Your task to perform on an android device: turn notification dots off Image 0: 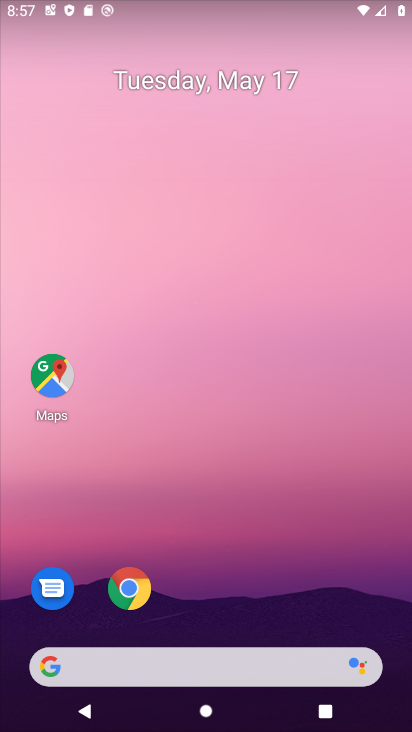
Step 0: drag from (348, 475) to (337, 250)
Your task to perform on an android device: turn notification dots off Image 1: 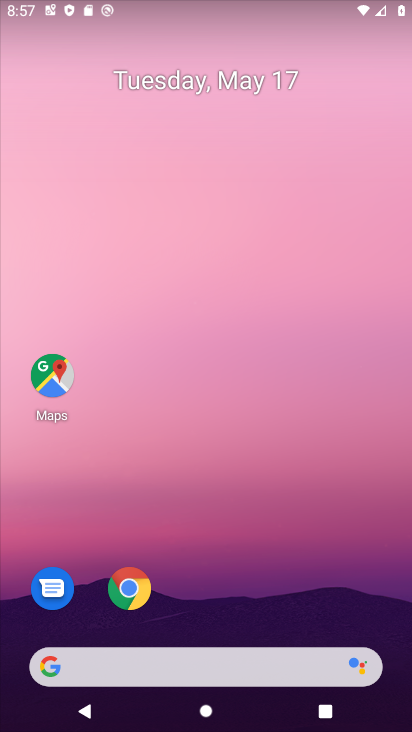
Step 1: drag from (402, 700) to (388, 365)
Your task to perform on an android device: turn notification dots off Image 2: 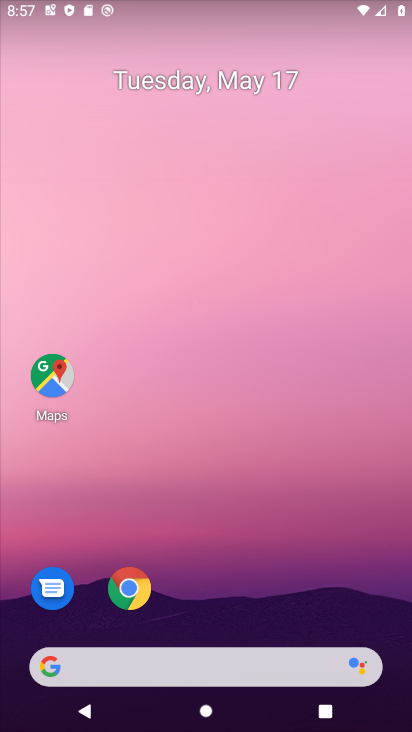
Step 2: drag from (403, 663) to (380, 192)
Your task to perform on an android device: turn notification dots off Image 3: 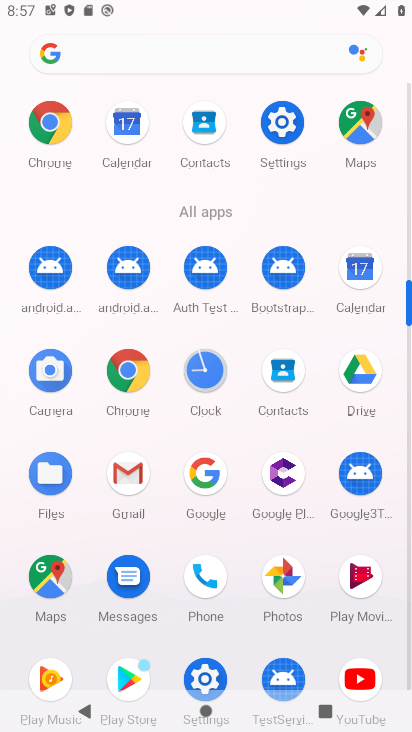
Step 3: click (215, 669)
Your task to perform on an android device: turn notification dots off Image 4: 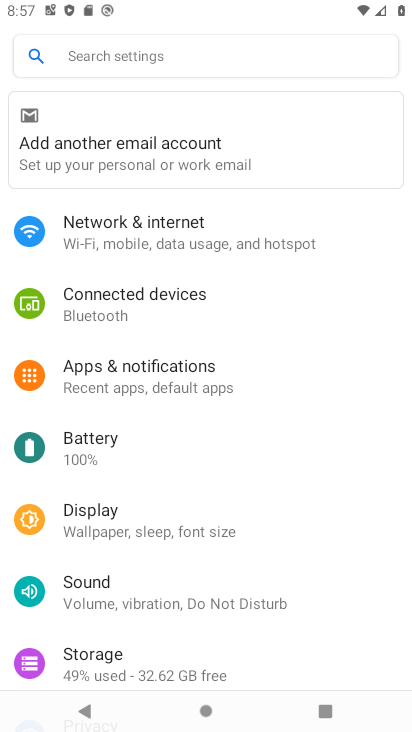
Step 4: click (118, 358)
Your task to perform on an android device: turn notification dots off Image 5: 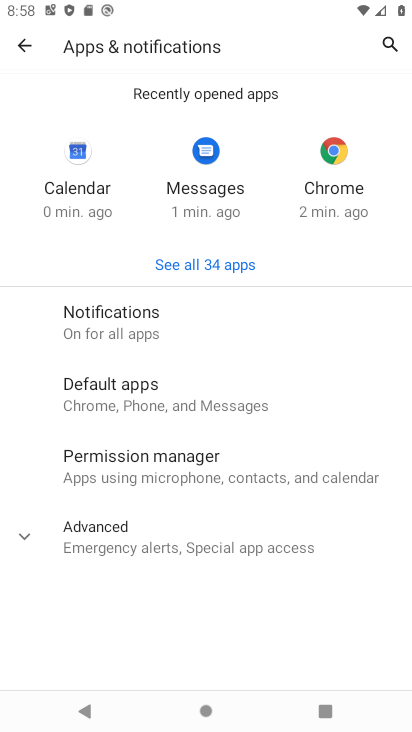
Step 5: click (106, 317)
Your task to perform on an android device: turn notification dots off Image 6: 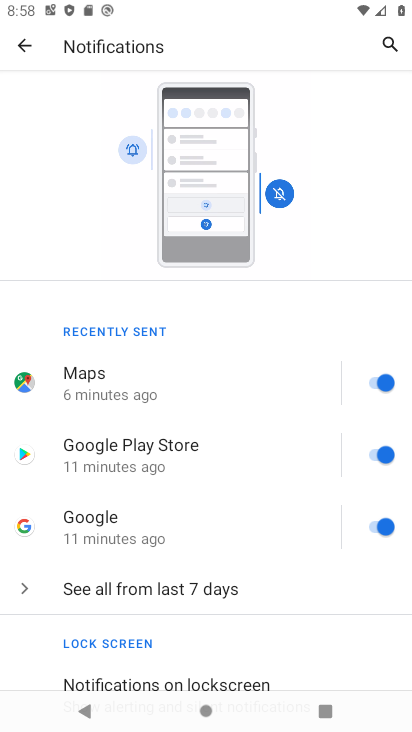
Step 6: drag from (296, 606) to (290, 320)
Your task to perform on an android device: turn notification dots off Image 7: 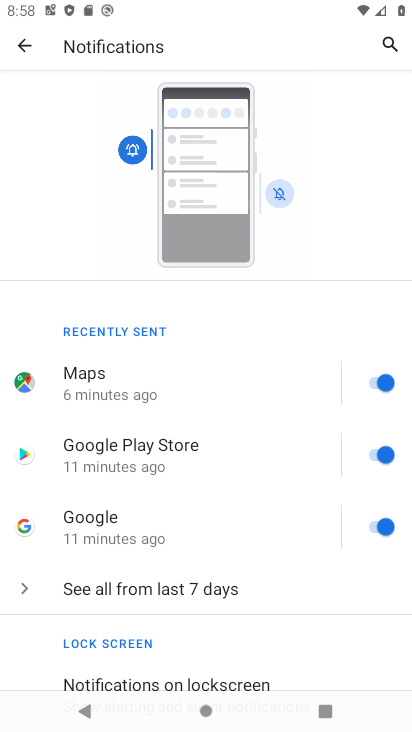
Step 7: drag from (273, 645) to (259, 387)
Your task to perform on an android device: turn notification dots off Image 8: 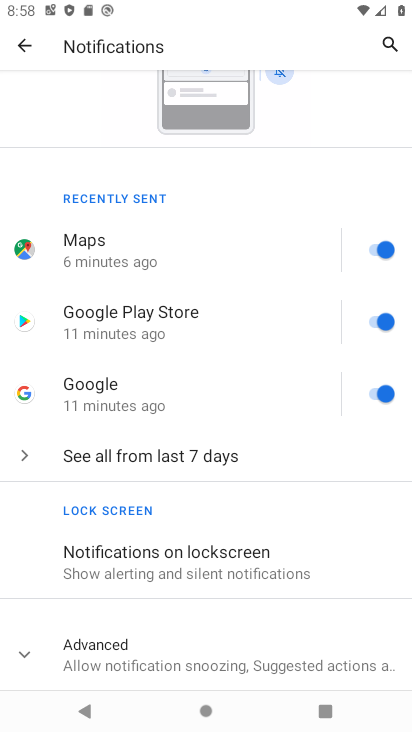
Step 8: drag from (301, 626) to (313, 137)
Your task to perform on an android device: turn notification dots off Image 9: 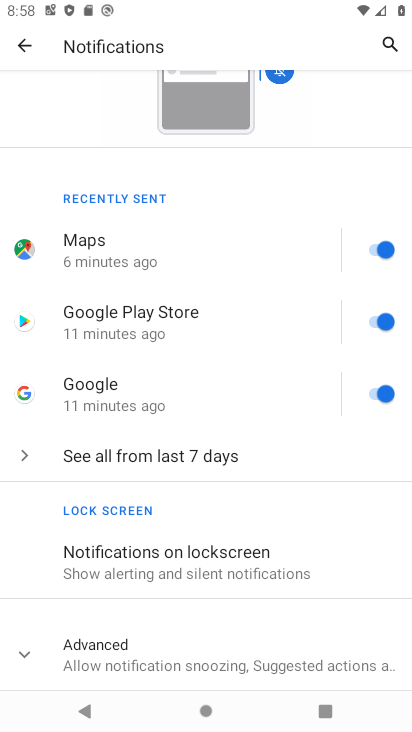
Step 9: click (32, 657)
Your task to perform on an android device: turn notification dots off Image 10: 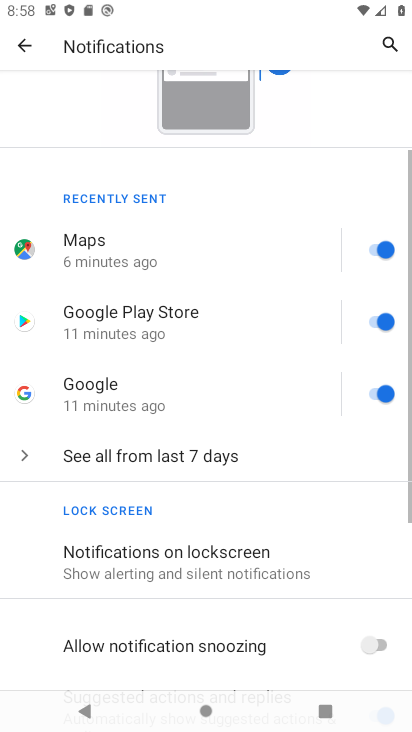
Step 10: drag from (269, 653) to (268, 357)
Your task to perform on an android device: turn notification dots off Image 11: 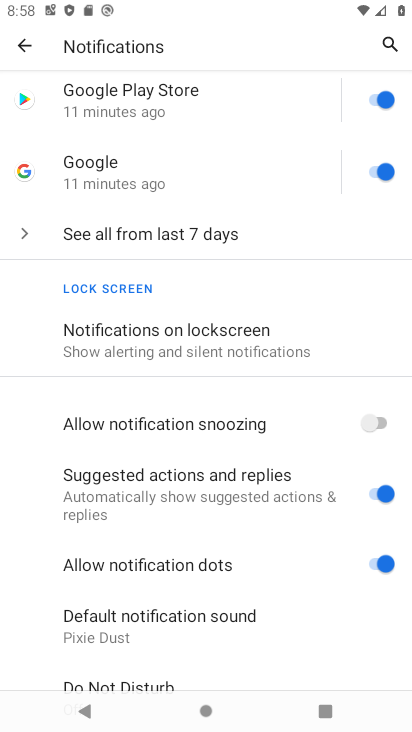
Step 11: click (367, 558)
Your task to perform on an android device: turn notification dots off Image 12: 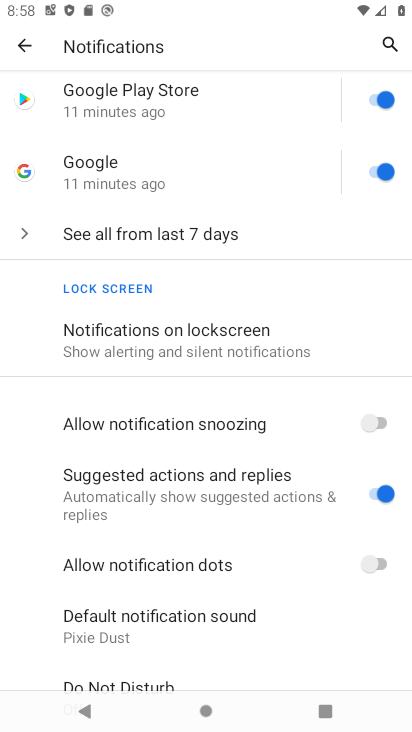
Step 12: task complete